Your task to perform on an android device: Open accessibility settings Image 0: 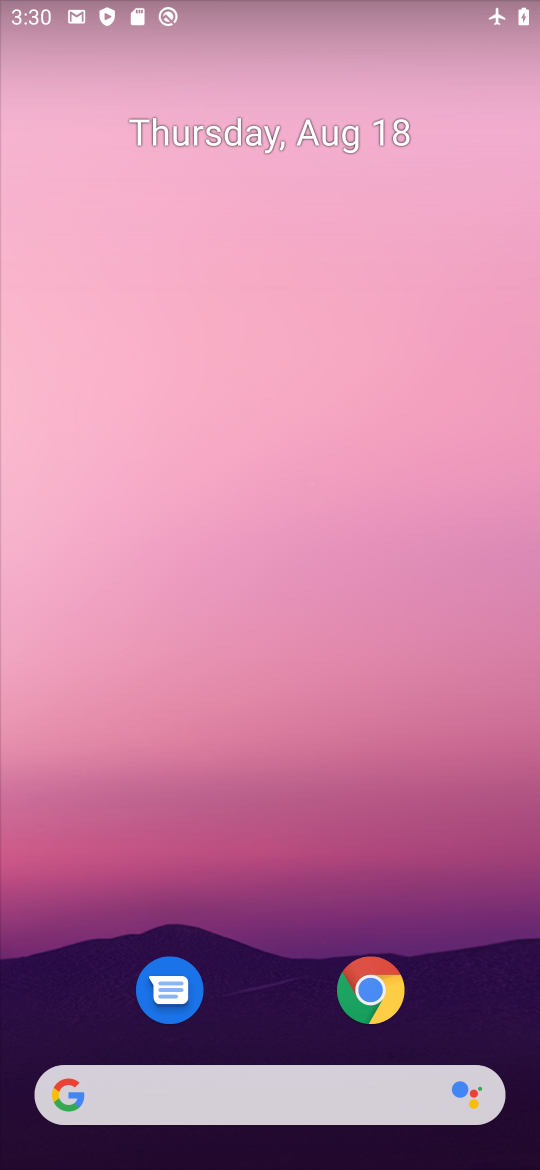
Step 0: drag from (265, 785) to (372, 61)
Your task to perform on an android device: Open accessibility settings Image 1: 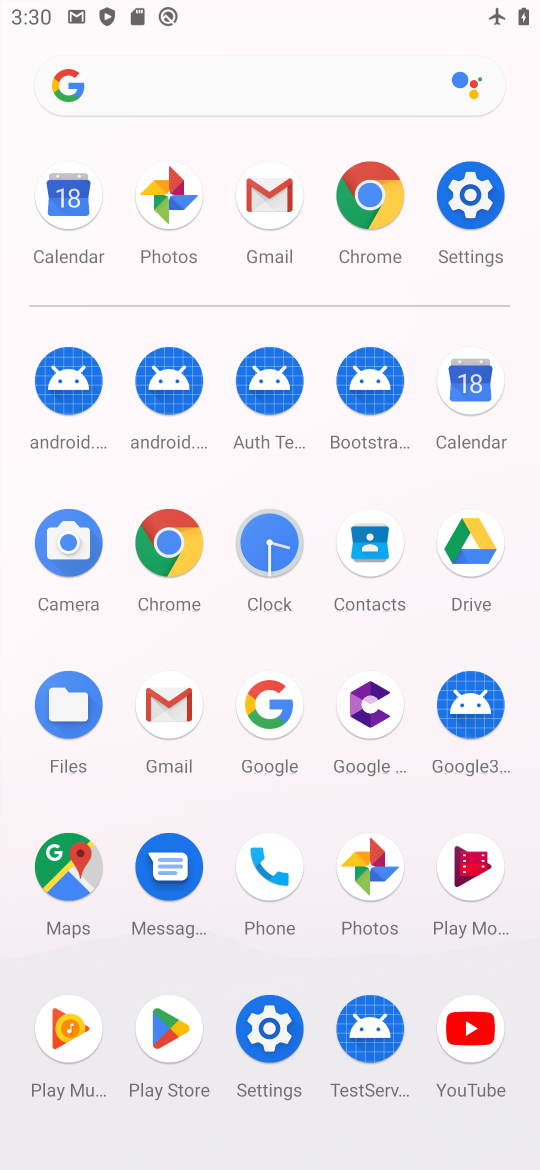
Step 1: click (273, 1014)
Your task to perform on an android device: Open accessibility settings Image 2: 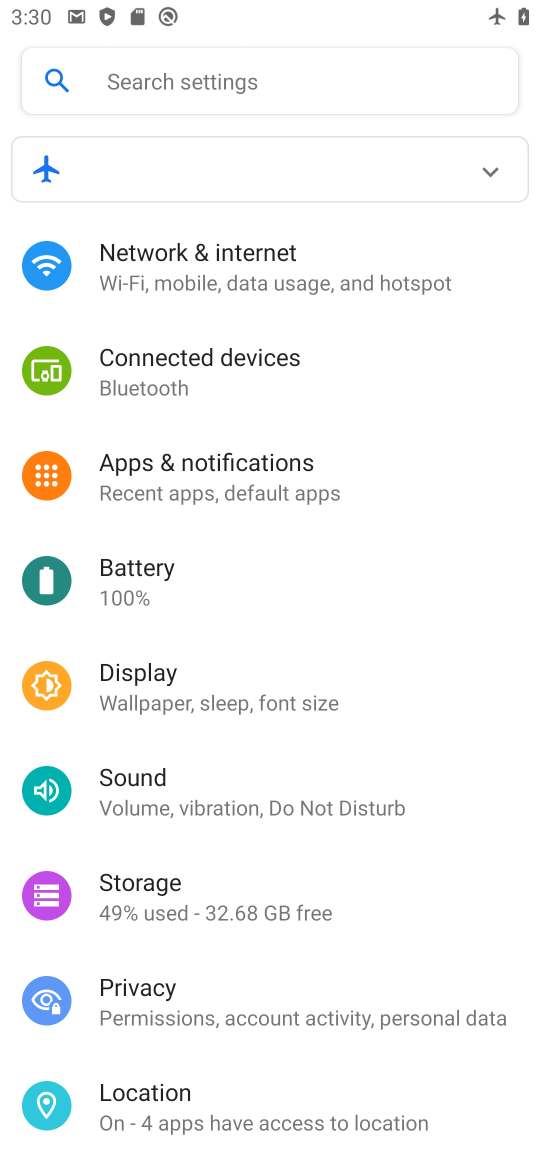
Step 2: drag from (235, 844) to (376, 367)
Your task to perform on an android device: Open accessibility settings Image 3: 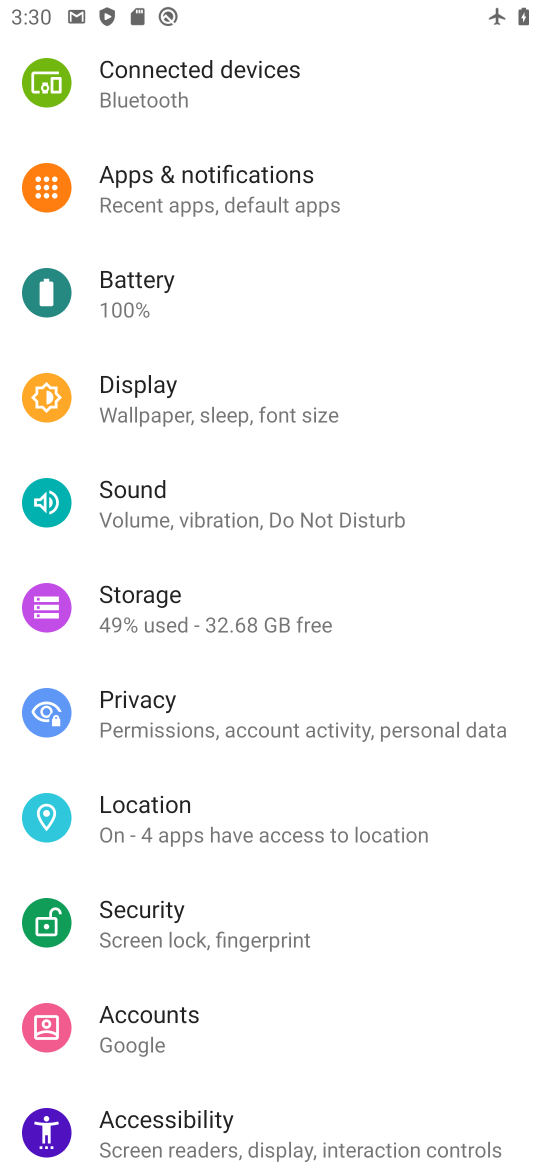
Step 3: click (210, 1114)
Your task to perform on an android device: Open accessibility settings Image 4: 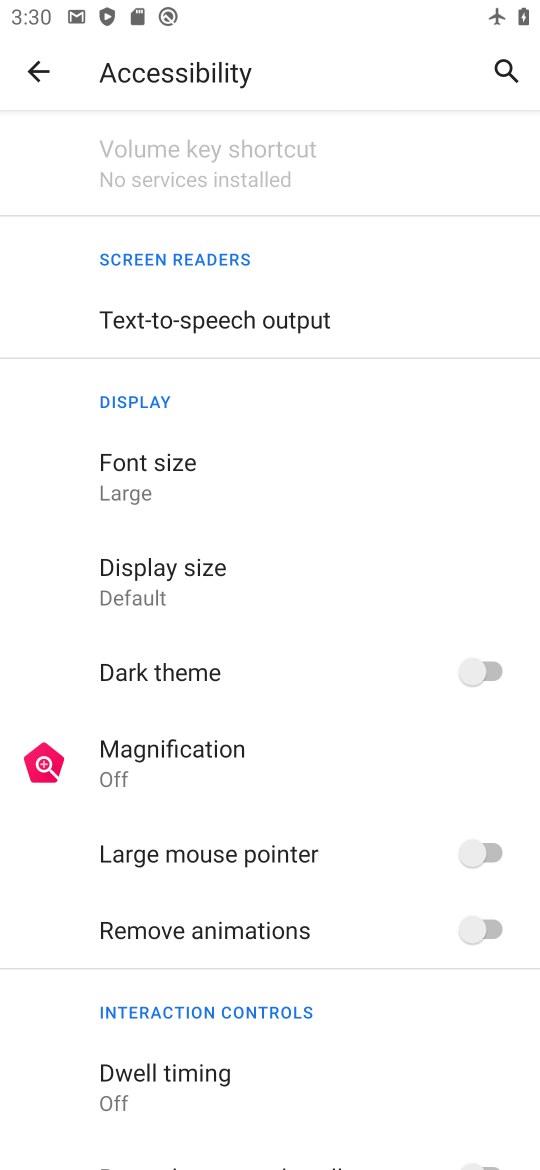
Step 4: task complete